Your task to perform on an android device: change the clock style Image 0: 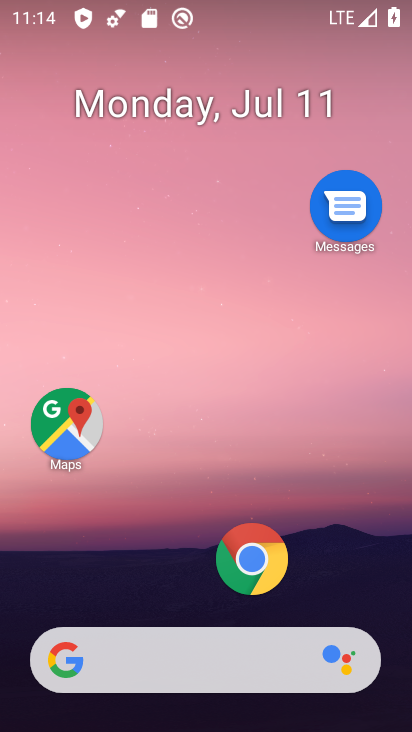
Step 0: drag from (363, 574) to (382, 187)
Your task to perform on an android device: change the clock style Image 1: 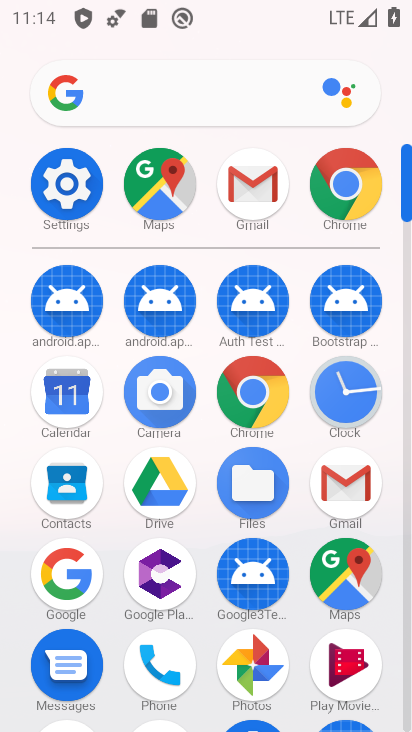
Step 1: click (352, 395)
Your task to perform on an android device: change the clock style Image 2: 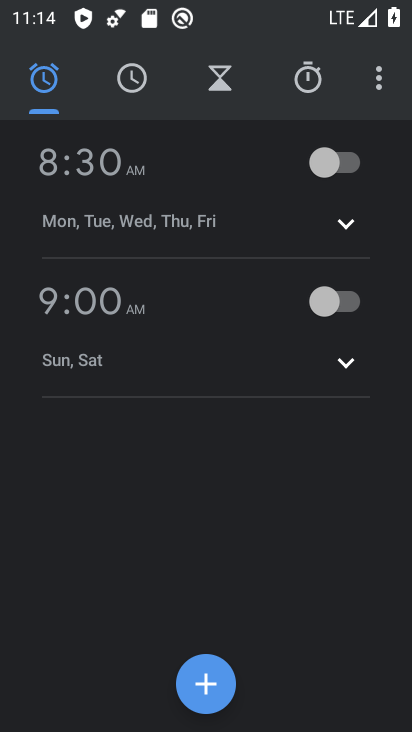
Step 2: click (380, 88)
Your task to perform on an android device: change the clock style Image 3: 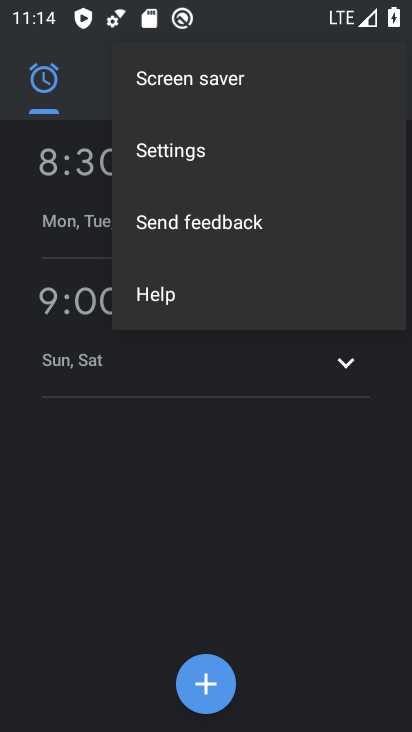
Step 3: click (237, 159)
Your task to perform on an android device: change the clock style Image 4: 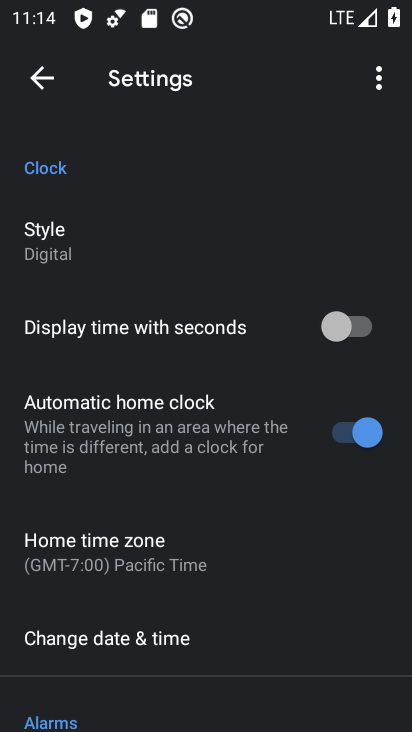
Step 4: drag from (285, 477) to (294, 345)
Your task to perform on an android device: change the clock style Image 5: 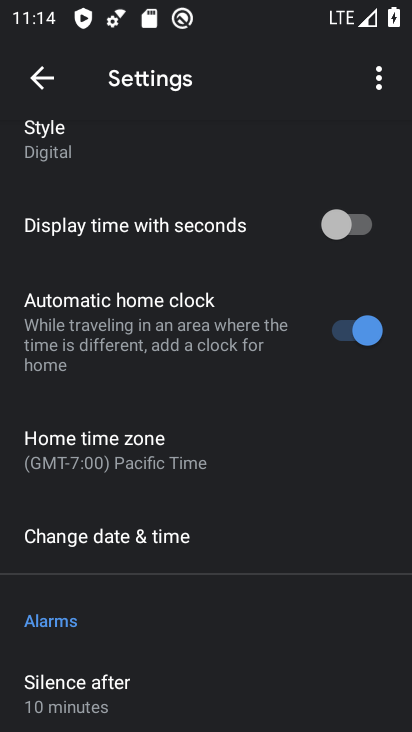
Step 5: click (62, 164)
Your task to perform on an android device: change the clock style Image 6: 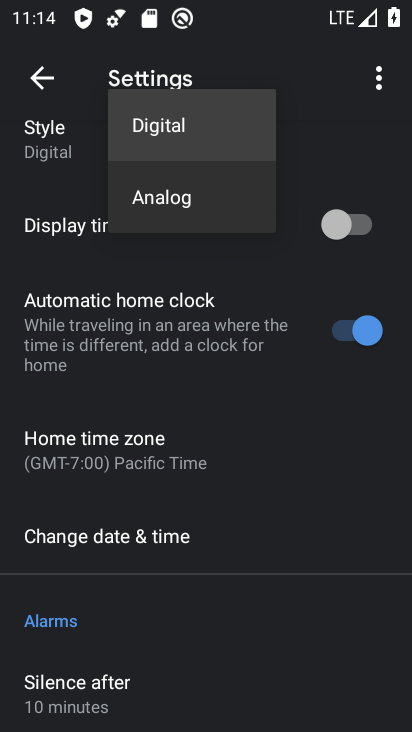
Step 6: click (138, 202)
Your task to perform on an android device: change the clock style Image 7: 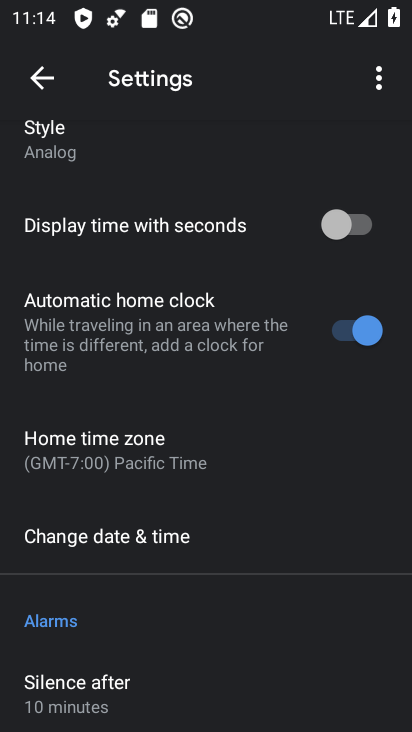
Step 7: task complete